Your task to perform on an android device: Open notification settings Image 0: 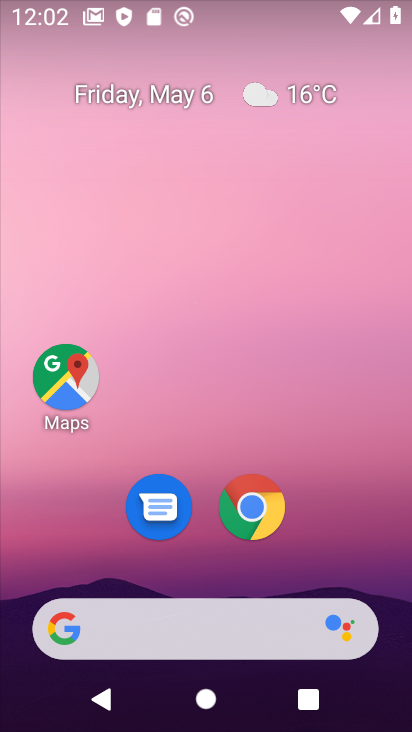
Step 0: drag from (209, 725) to (205, 205)
Your task to perform on an android device: Open notification settings Image 1: 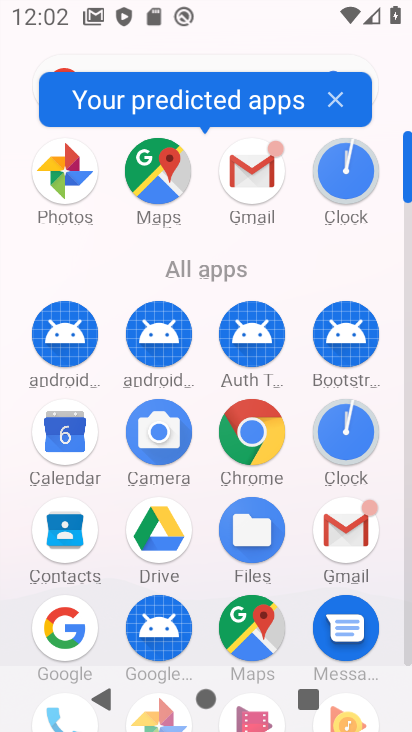
Step 1: drag from (119, 599) to (106, 298)
Your task to perform on an android device: Open notification settings Image 2: 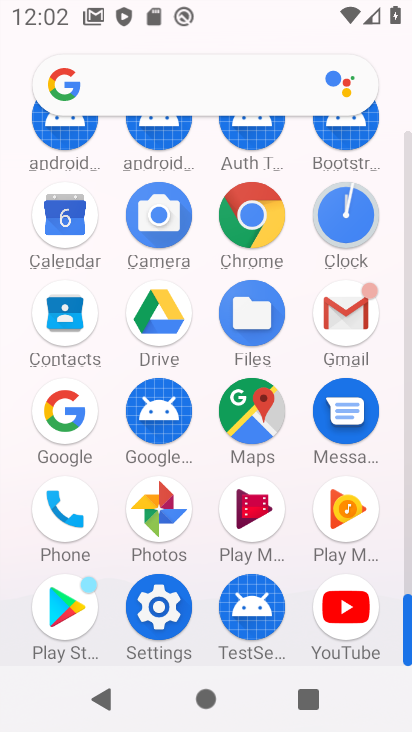
Step 2: click (155, 605)
Your task to perform on an android device: Open notification settings Image 3: 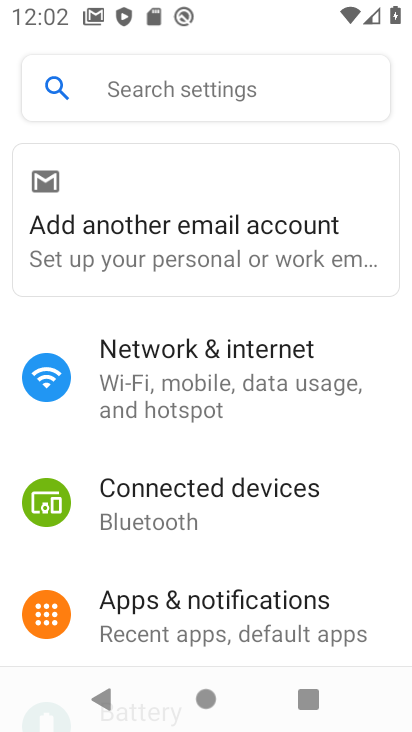
Step 3: click (190, 370)
Your task to perform on an android device: Open notification settings Image 4: 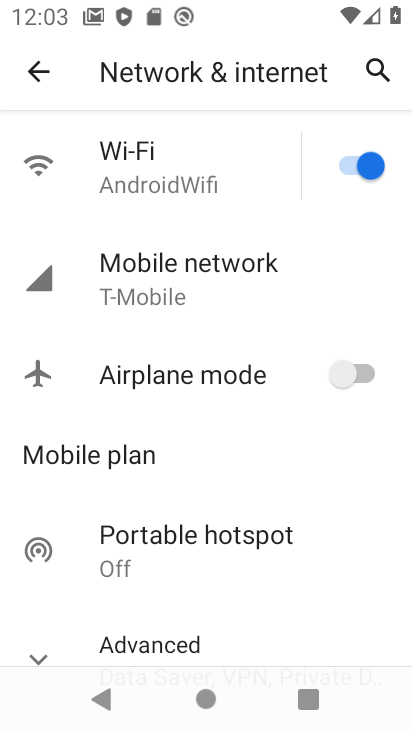
Step 4: task complete